Your task to perform on an android device: Search for a new foundation on Sephora Image 0: 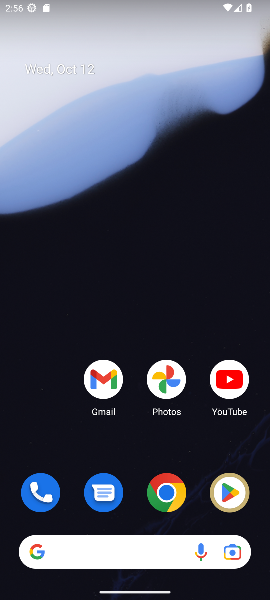
Step 0: click (170, 492)
Your task to perform on an android device: Search for a new foundation on Sephora Image 1: 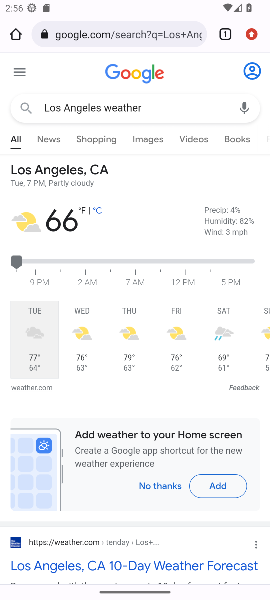
Step 1: click (103, 38)
Your task to perform on an android device: Search for a new foundation on Sephora Image 2: 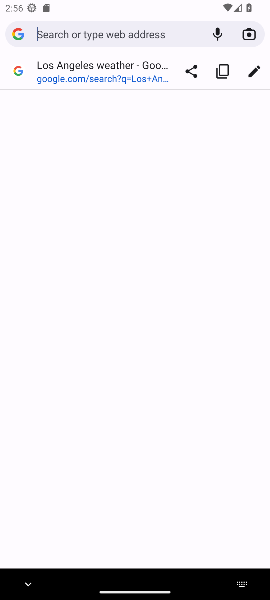
Step 2: type "new foundation on Sephora"
Your task to perform on an android device: Search for a new foundation on Sephora Image 3: 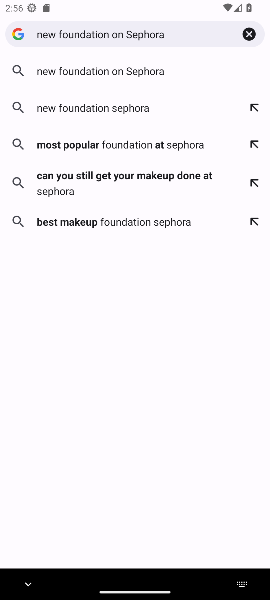
Step 3: click (88, 71)
Your task to perform on an android device: Search for a new foundation on Sephora Image 4: 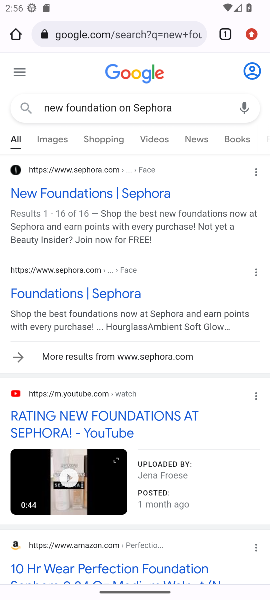
Step 4: click (75, 200)
Your task to perform on an android device: Search for a new foundation on Sephora Image 5: 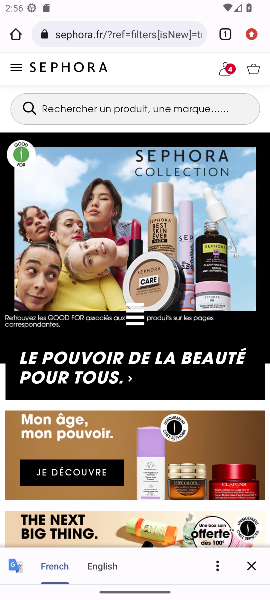
Step 5: task complete